Your task to perform on an android device: Open Yahoo.com Image 0: 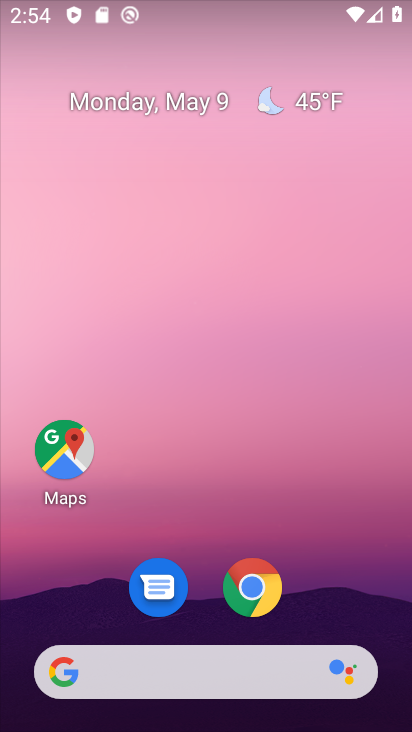
Step 0: click (262, 593)
Your task to perform on an android device: Open Yahoo.com Image 1: 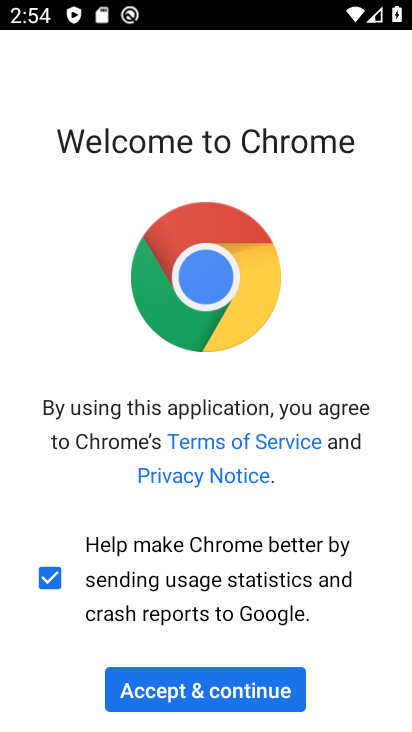
Step 1: click (182, 713)
Your task to perform on an android device: Open Yahoo.com Image 2: 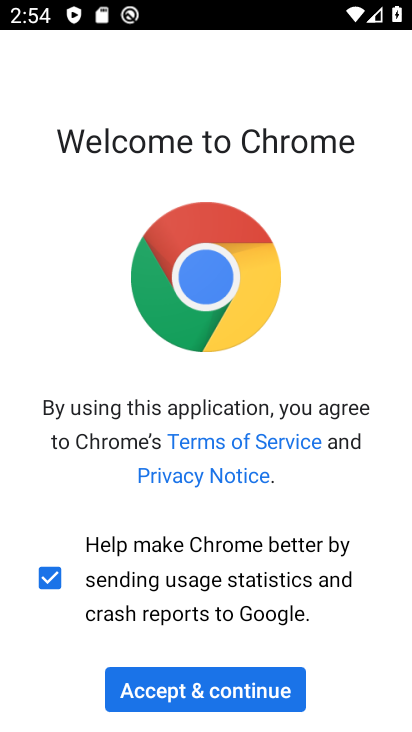
Step 2: click (196, 693)
Your task to perform on an android device: Open Yahoo.com Image 3: 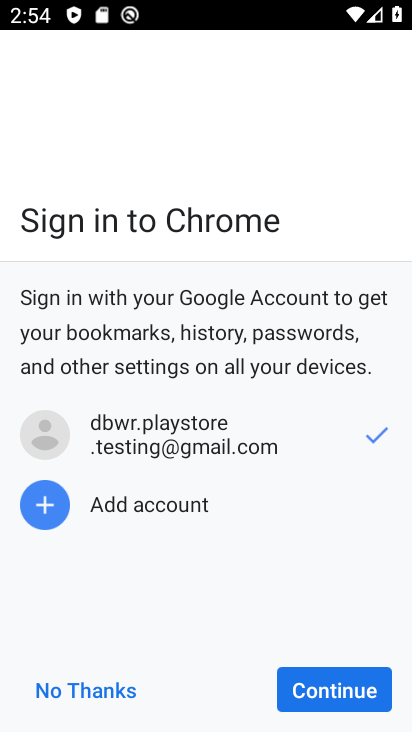
Step 3: click (376, 689)
Your task to perform on an android device: Open Yahoo.com Image 4: 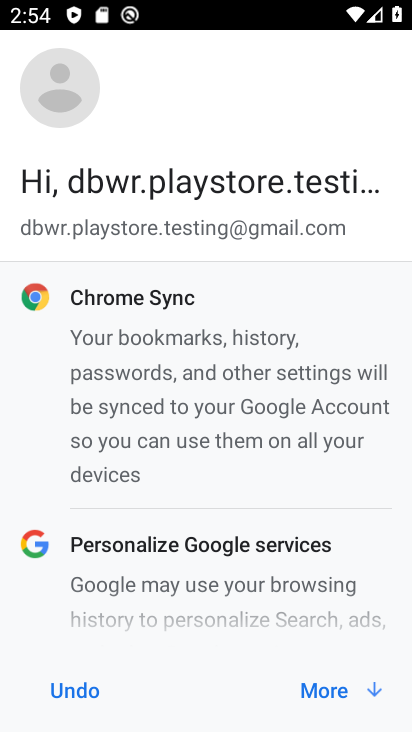
Step 4: click (347, 687)
Your task to perform on an android device: Open Yahoo.com Image 5: 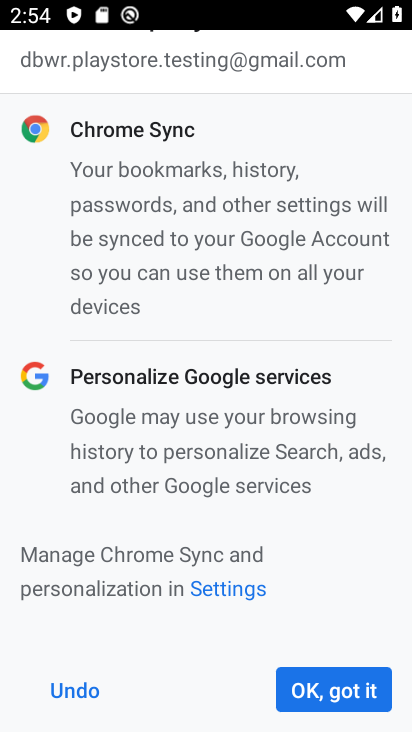
Step 5: click (347, 687)
Your task to perform on an android device: Open Yahoo.com Image 6: 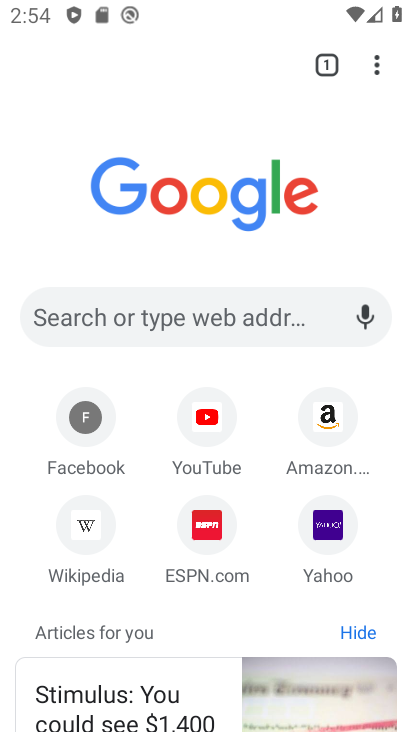
Step 6: click (326, 538)
Your task to perform on an android device: Open Yahoo.com Image 7: 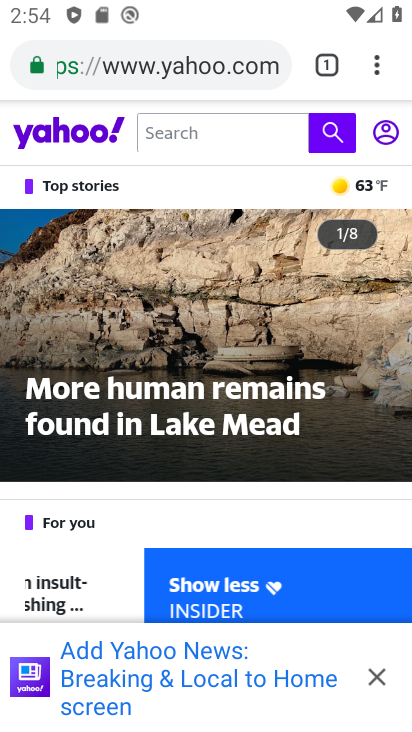
Step 7: task complete